Your task to perform on an android device: find snoozed emails in the gmail app Image 0: 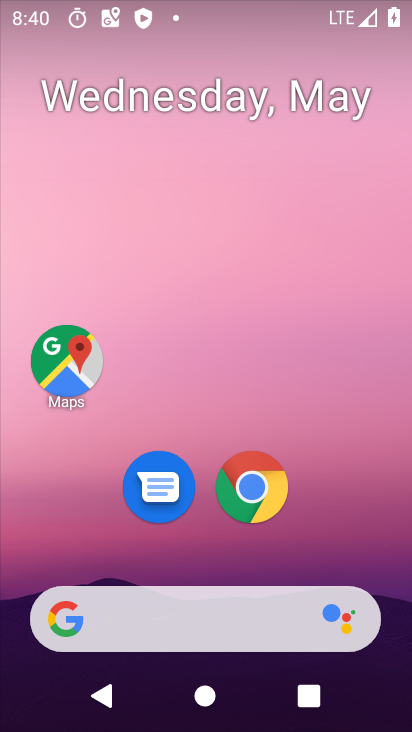
Step 0: drag from (196, 553) to (188, 169)
Your task to perform on an android device: find snoozed emails in the gmail app Image 1: 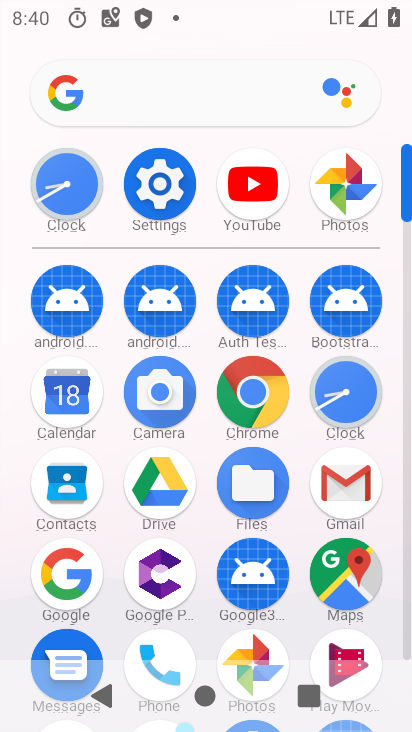
Step 1: click (330, 489)
Your task to perform on an android device: find snoozed emails in the gmail app Image 2: 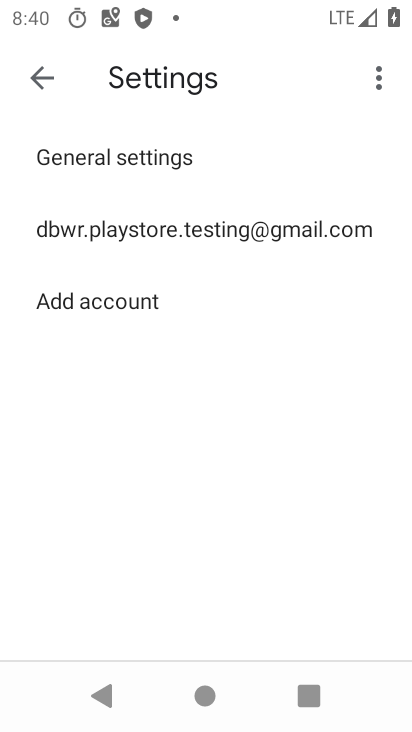
Step 2: click (39, 79)
Your task to perform on an android device: find snoozed emails in the gmail app Image 3: 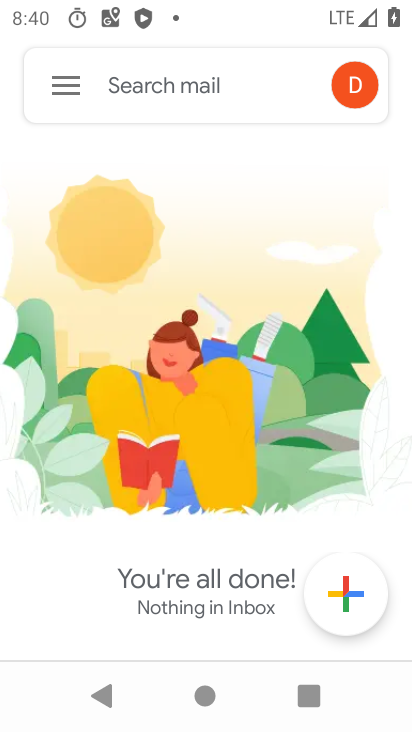
Step 3: click (66, 88)
Your task to perform on an android device: find snoozed emails in the gmail app Image 4: 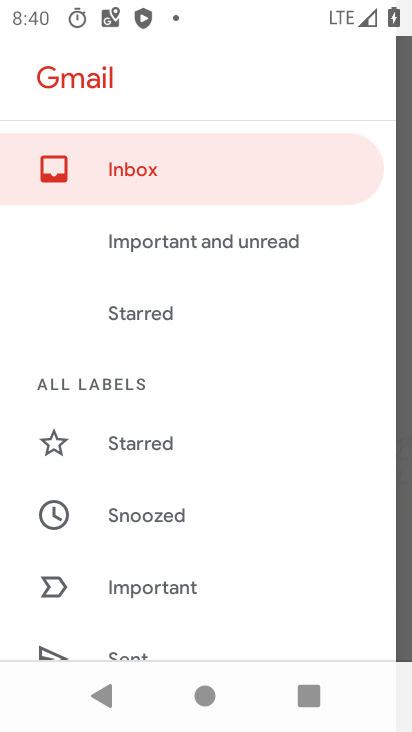
Step 4: click (169, 511)
Your task to perform on an android device: find snoozed emails in the gmail app Image 5: 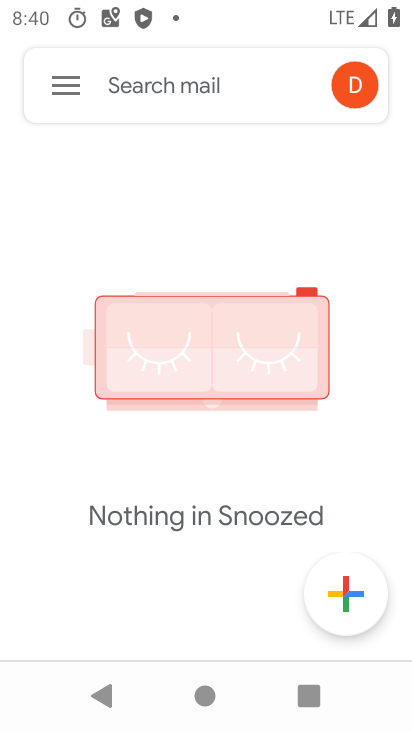
Step 5: task complete